Your task to perform on an android device: allow notifications from all sites in the chrome app Image 0: 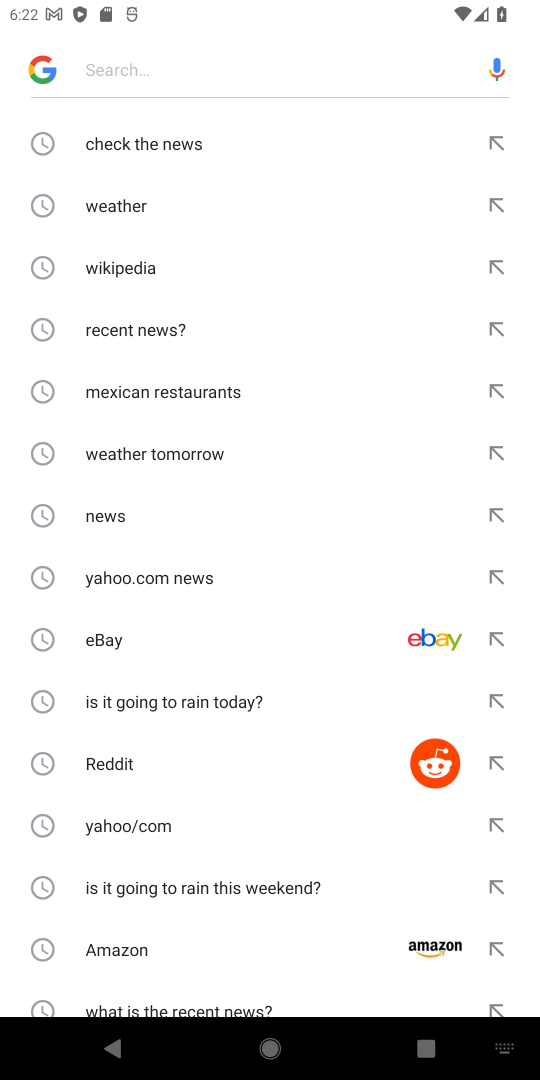
Step 0: press back button
Your task to perform on an android device: allow notifications from all sites in the chrome app Image 1: 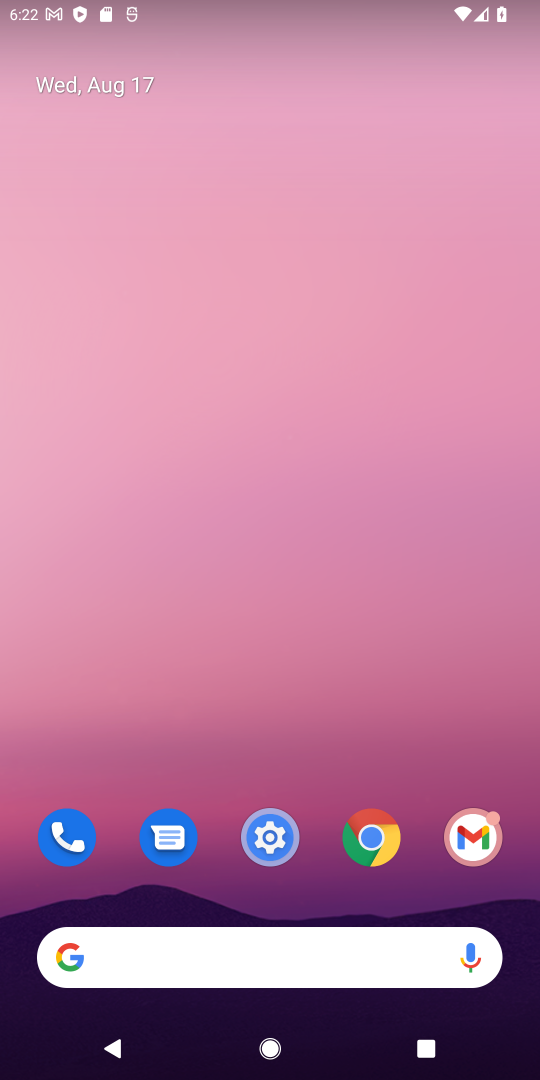
Step 1: click (359, 836)
Your task to perform on an android device: allow notifications from all sites in the chrome app Image 2: 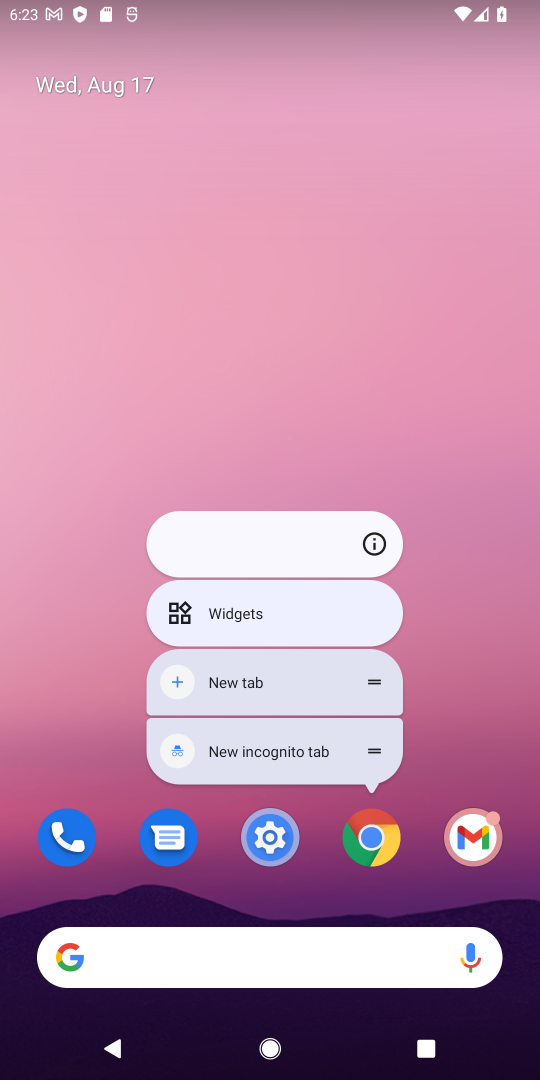
Step 2: click (374, 854)
Your task to perform on an android device: allow notifications from all sites in the chrome app Image 3: 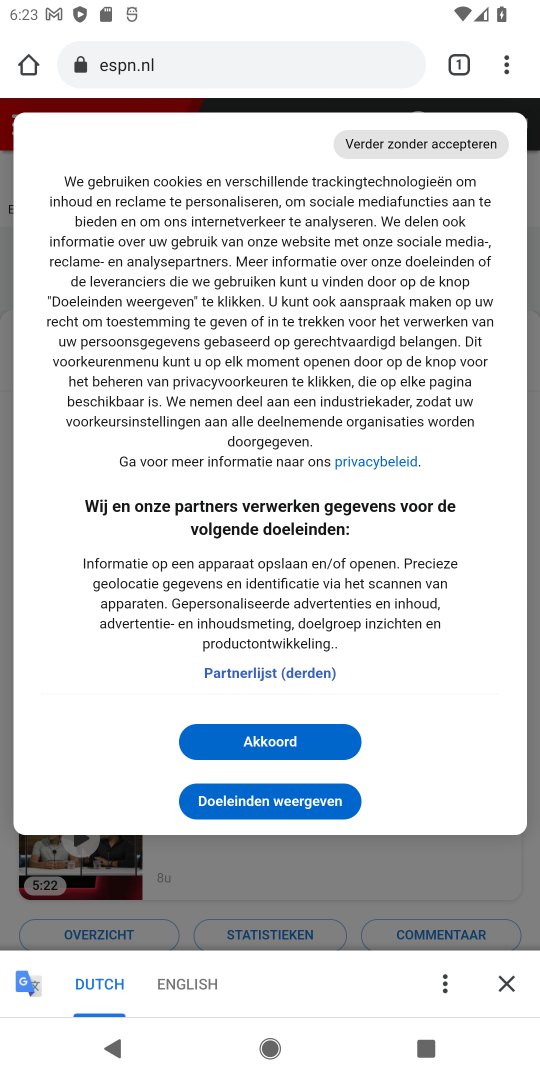
Step 3: drag from (499, 63) to (331, 864)
Your task to perform on an android device: allow notifications from all sites in the chrome app Image 4: 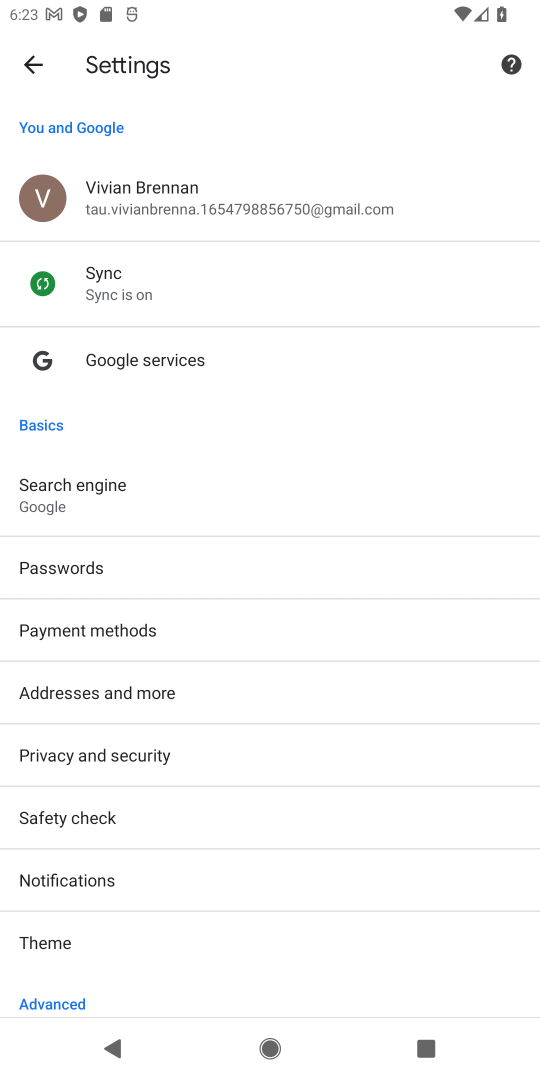
Step 4: click (160, 884)
Your task to perform on an android device: allow notifications from all sites in the chrome app Image 5: 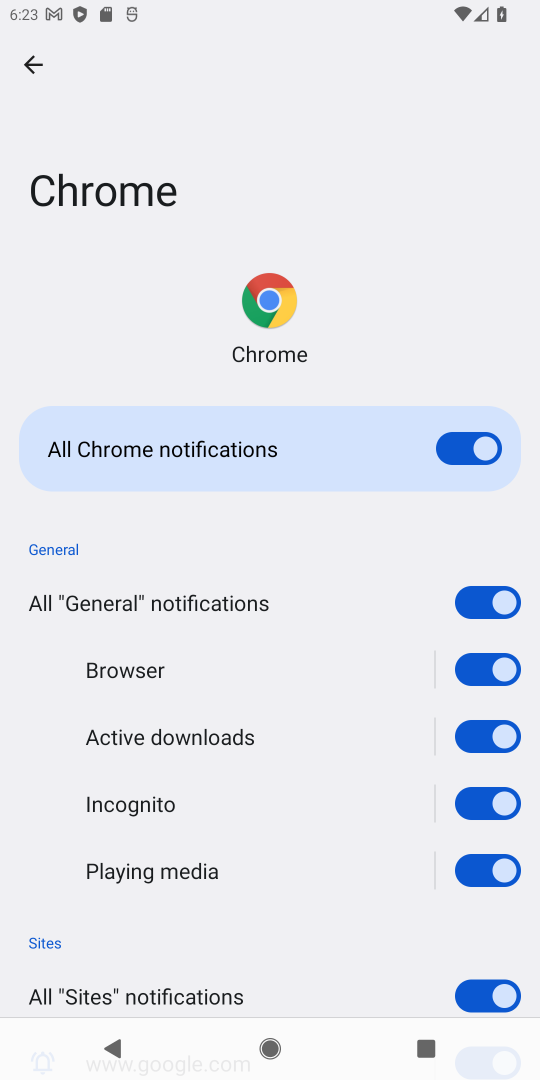
Step 5: task complete